Your task to perform on an android device: remove spam from my inbox in the gmail app Image 0: 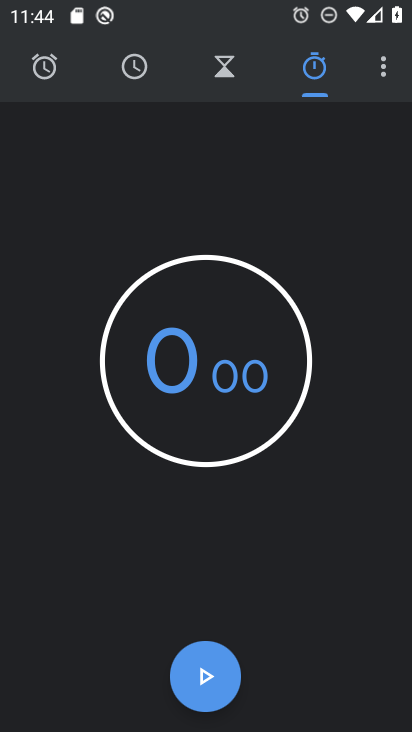
Step 0: press home button
Your task to perform on an android device: remove spam from my inbox in the gmail app Image 1: 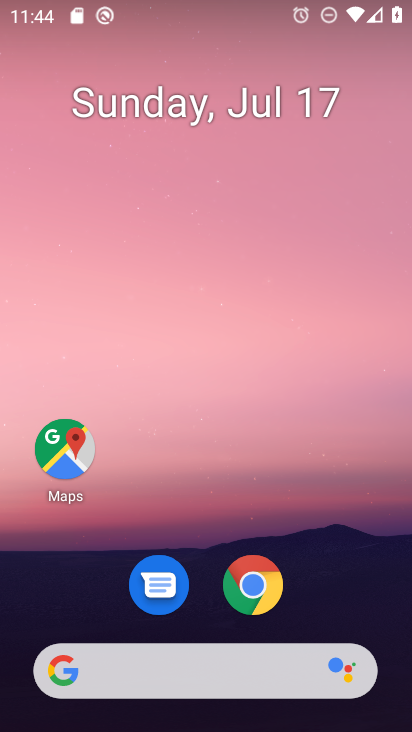
Step 1: drag from (310, 587) to (362, 40)
Your task to perform on an android device: remove spam from my inbox in the gmail app Image 2: 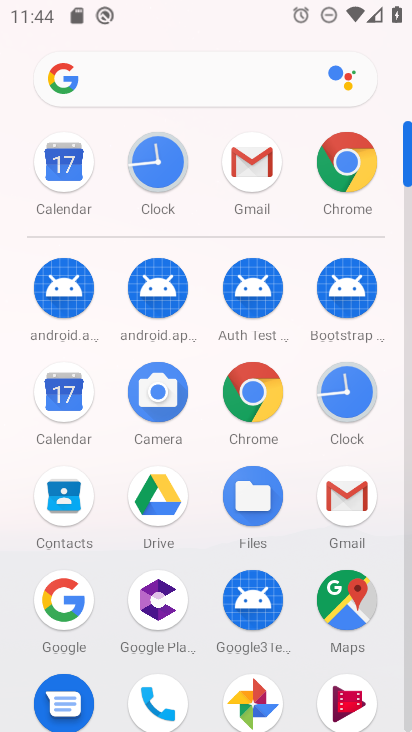
Step 2: click (265, 168)
Your task to perform on an android device: remove spam from my inbox in the gmail app Image 3: 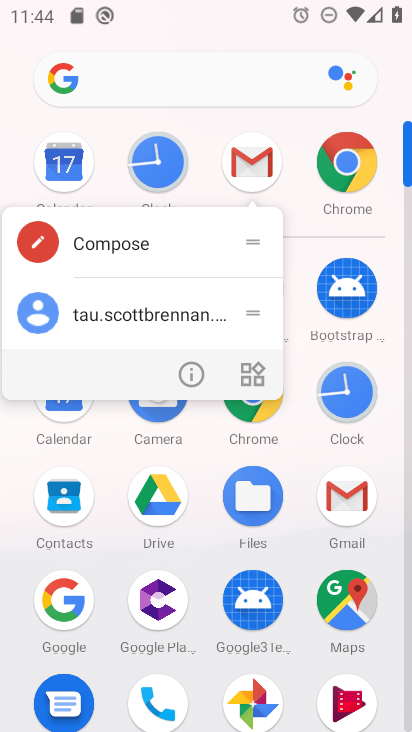
Step 3: click (256, 165)
Your task to perform on an android device: remove spam from my inbox in the gmail app Image 4: 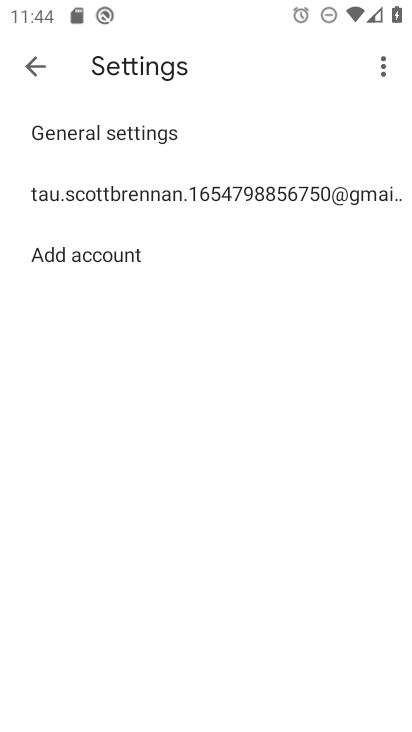
Step 4: click (41, 64)
Your task to perform on an android device: remove spam from my inbox in the gmail app Image 5: 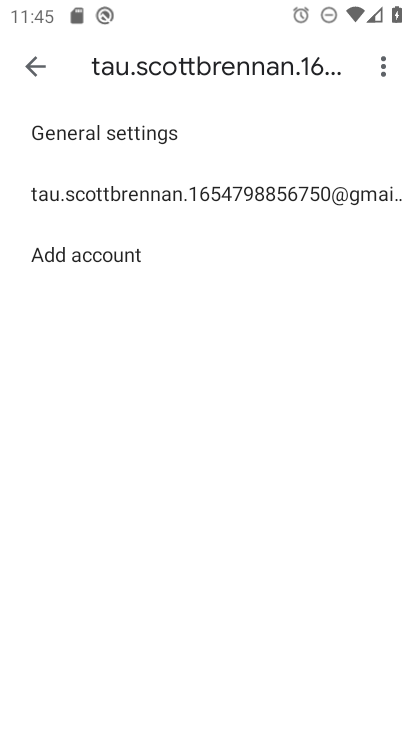
Step 5: click (35, 59)
Your task to perform on an android device: remove spam from my inbox in the gmail app Image 6: 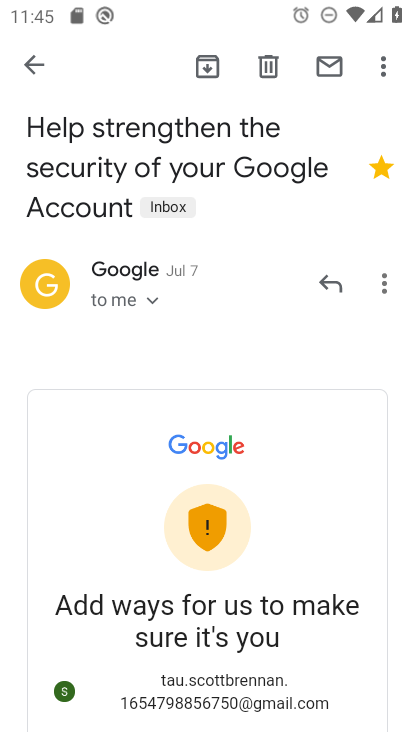
Step 6: click (39, 62)
Your task to perform on an android device: remove spam from my inbox in the gmail app Image 7: 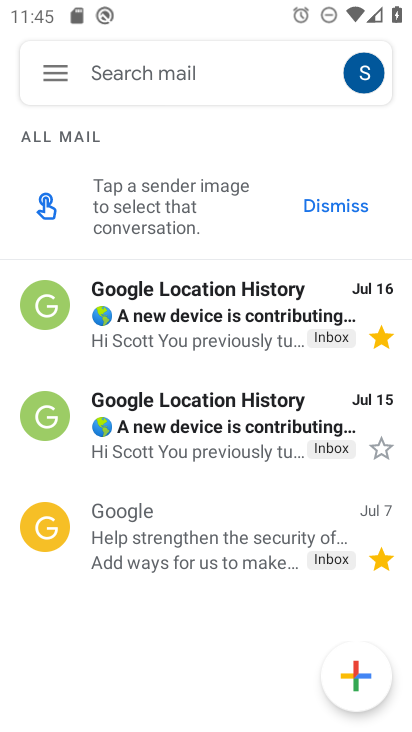
Step 7: click (48, 73)
Your task to perform on an android device: remove spam from my inbox in the gmail app Image 8: 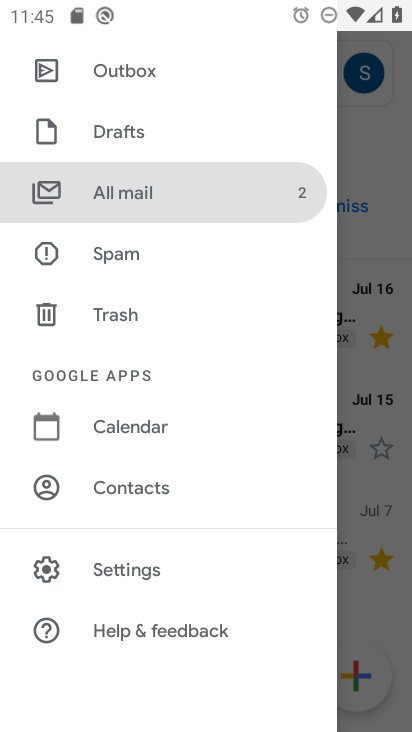
Step 8: drag from (195, 284) to (196, 715)
Your task to perform on an android device: remove spam from my inbox in the gmail app Image 9: 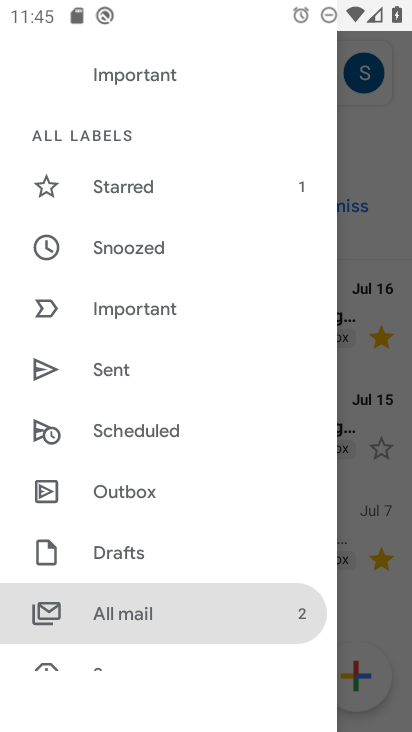
Step 9: drag from (177, 163) to (153, 564)
Your task to perform on an android device: remove spam from my inbox in the gmail app Image 10: 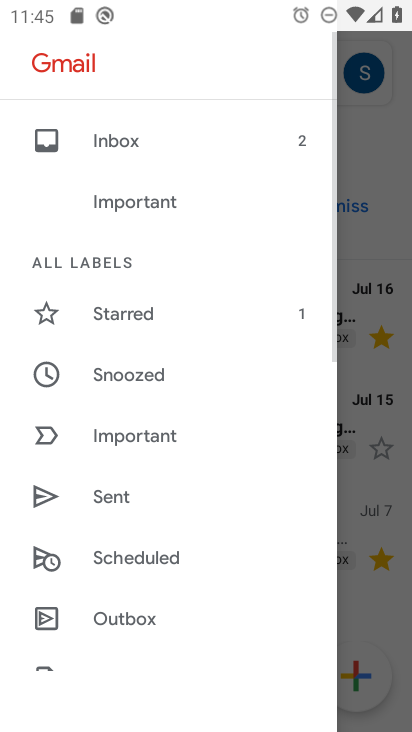
Step 10: click (129, 144)
Your task to perform on an android device: remove spam from my inbox in the gmail app Image 11: 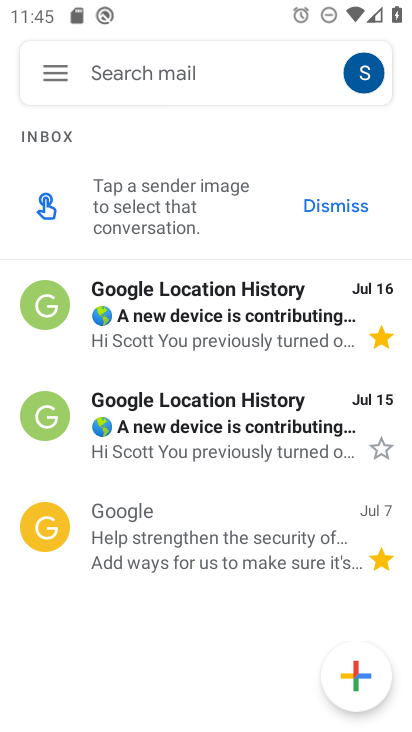
Step 11: click (45, 68)
Your task to perform on an android device: remove spam from my inbox in the gmail app Image 12: 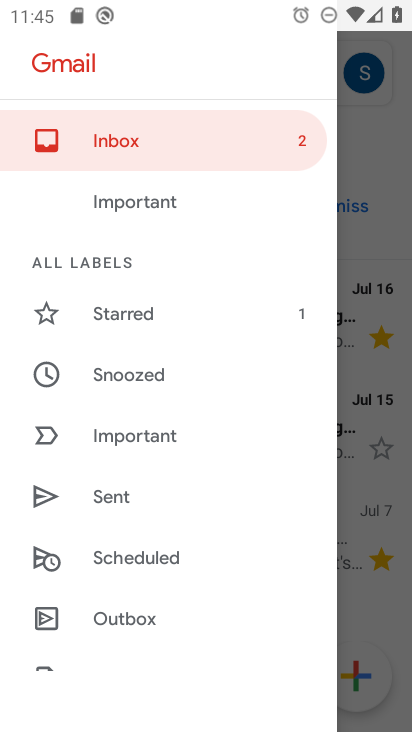
Step 12: drag from (174, 484) to (215, 0)
Your task to perform on an android device: remove spam from my inbox in the gmail app Image 13: 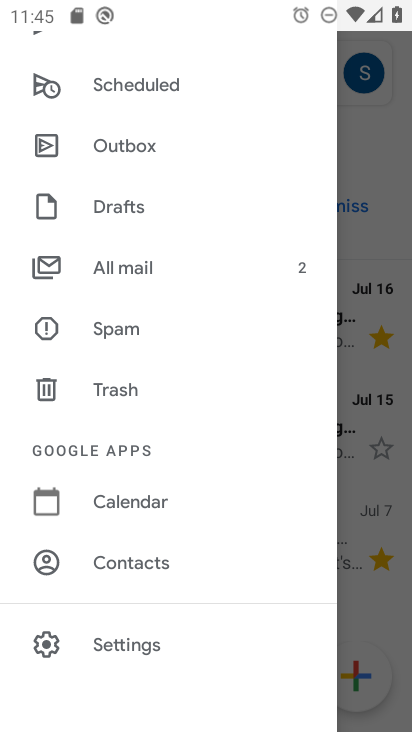
Step 13: click (123, 327)
Your task to perform on an android device: remove spam from my inbox in the gmail app Image 14: 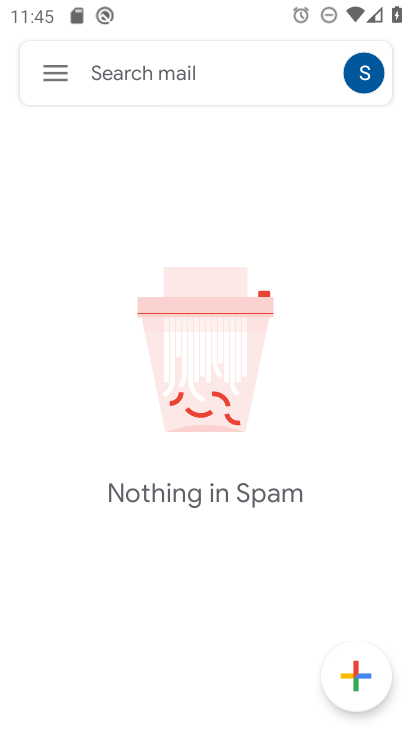
Step 14: task complete